Your task to perform on an android device: Open the stopwatch Image 0: 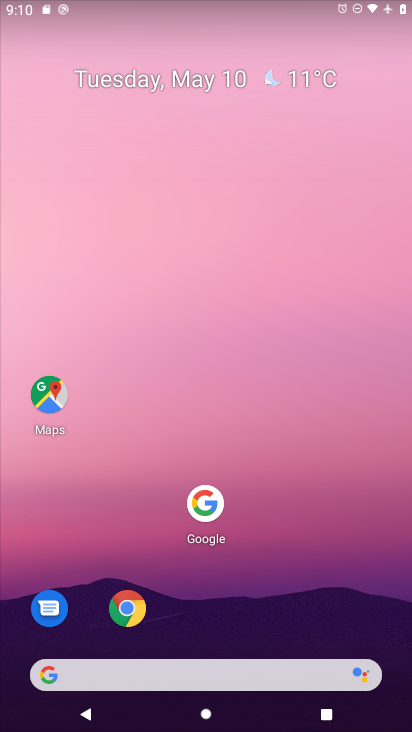
Step 0: drag from (275, 641) to (323, 76)
Your task to perform on an android device: Open the stopwatch Image 1: 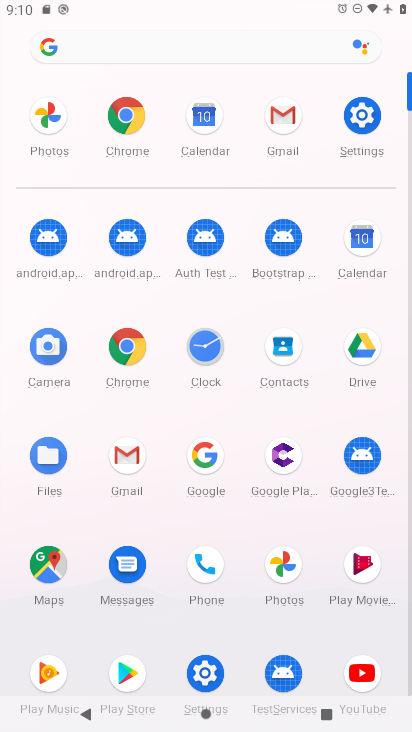
Step 1: click (210, 347)
Your task to perform on an android device: Open the stopwatch Image 2: 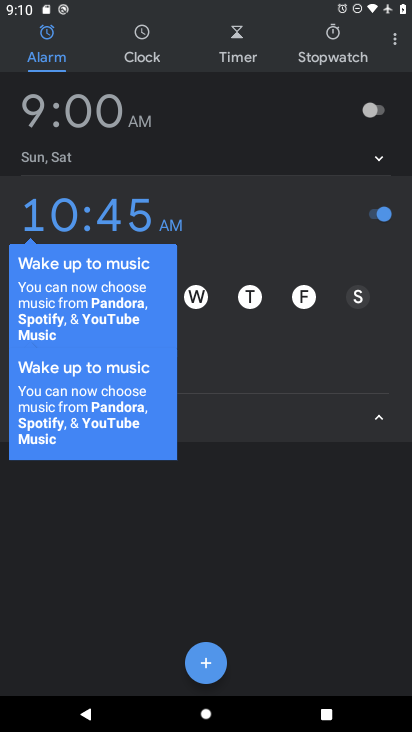
Step 2: click (338, 54)
Your task to perform on an android device: Open the stopwatch Image 3: 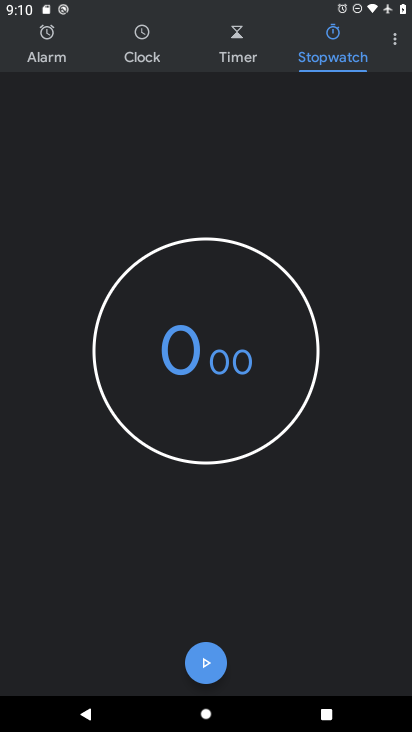
Step 3: task complete